Your task to perform on an android device: set the stopwatch Image 0: 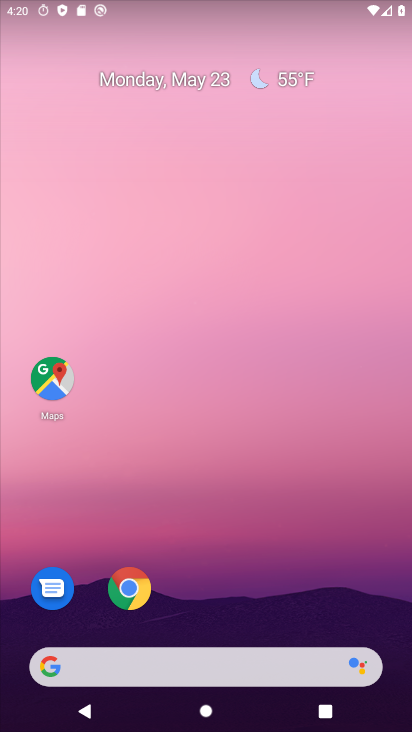
Step 0: drag from (264, 584) to (269, 115)
Your task to perform on an android device: set the stopwatch Image 1: 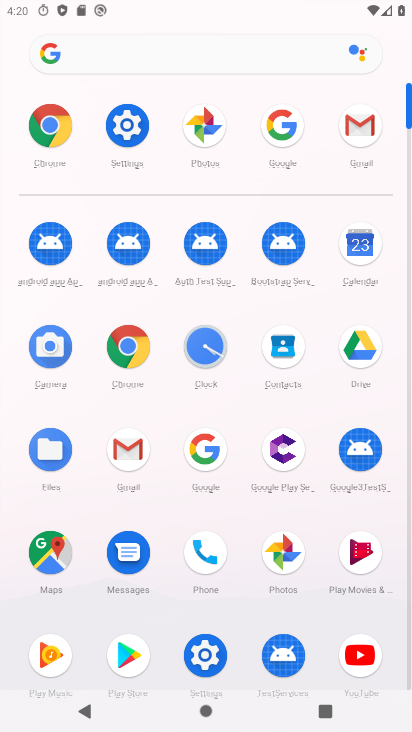
Step 1: click (204, 349)
Your task to perform on an android device: set the stopwatch Image 2: 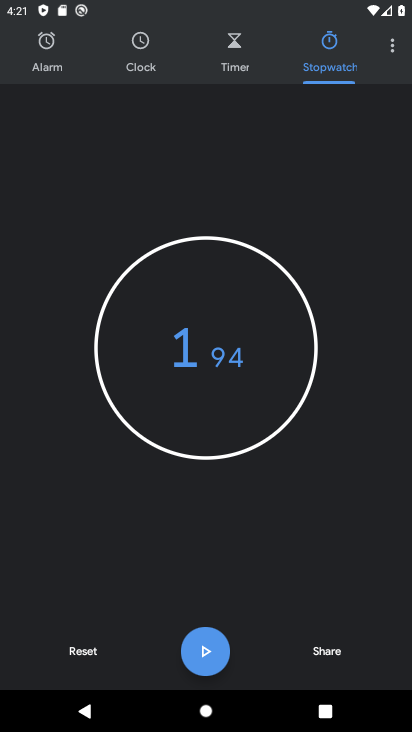
Step 2: task complete